Your task to perform on an android device: Open Google Maps and go to "Timeline" Image 0: 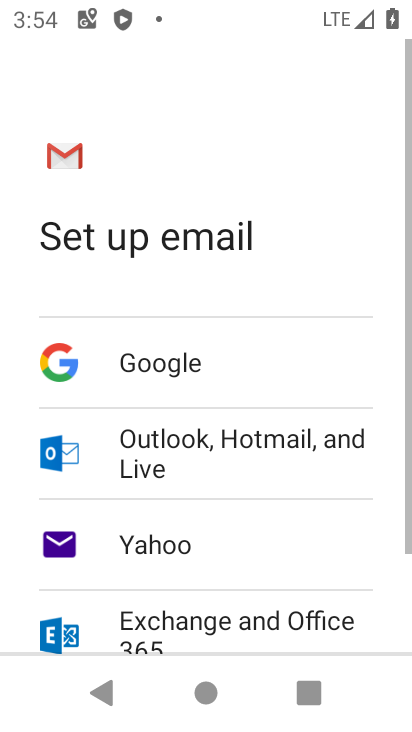
Step 0: press home button
Your task to perform on an android device: Open Google Maps and go to "Timeline" Image 1: 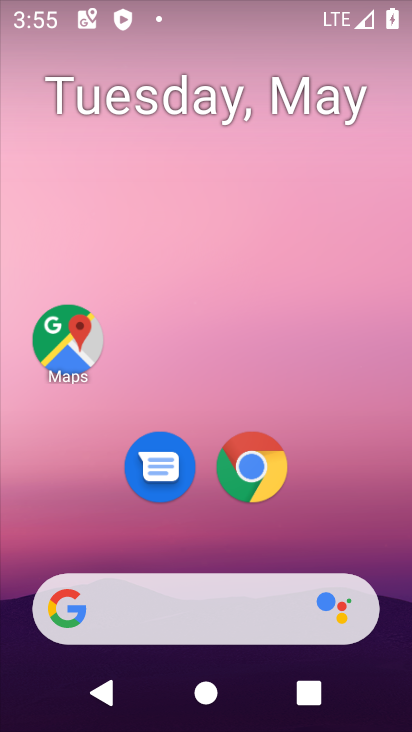
Step 1: click (64, 344)
Your task to perform on an android device: Open Google Maps and go to "Timeline" Image 2: 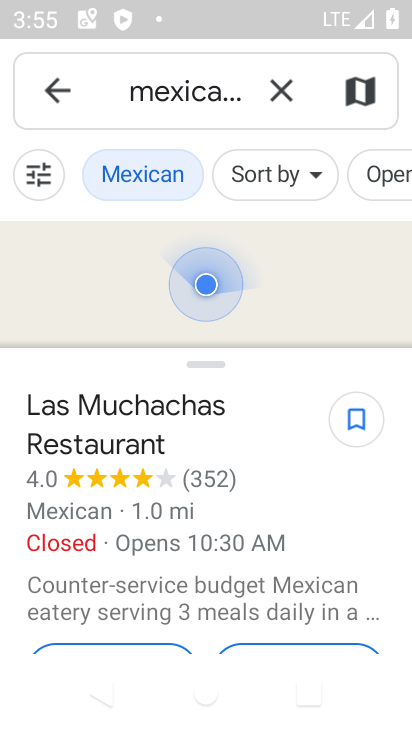
Step 2: click (292, 88)
Your task to perform on an android device: Open Google Maps and go to "Timeline" Image 3: 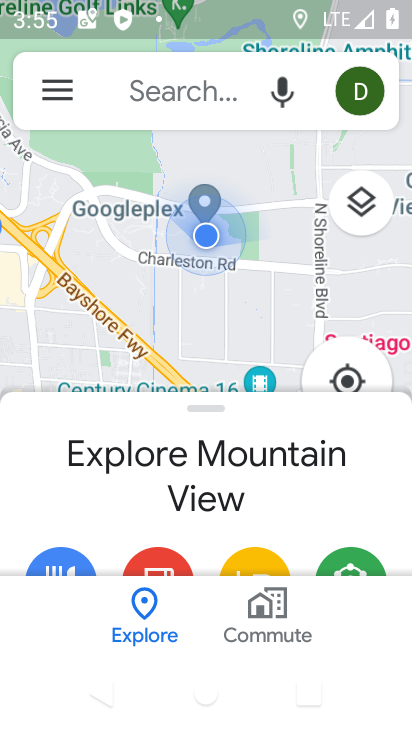
Step 3: click (63, 92)
Your task to perform on an android device: Open Google Maps and go to "Timeline" Image 4: 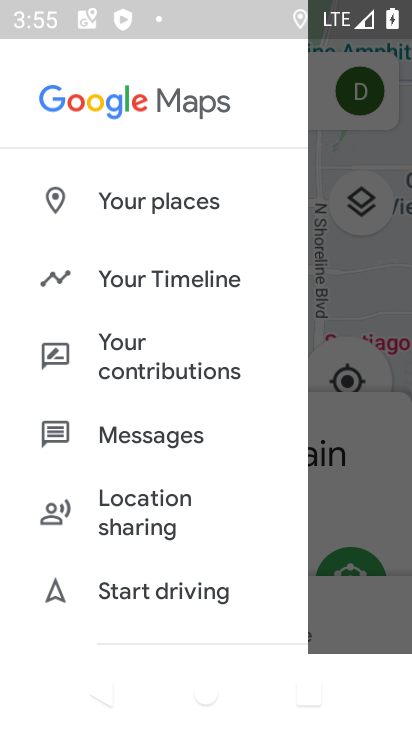
Step 4: click (178, 277)
Your task to perform on an android device: Open Google Maps and go to "Timeline" Image 5: 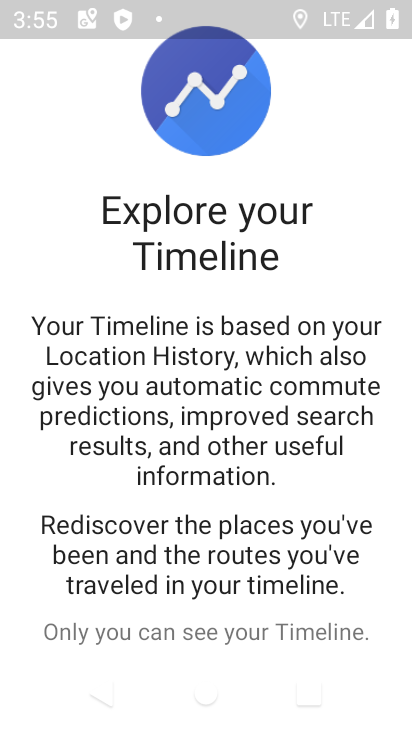
Step 5: drag from (346, 559) to (332, 263)
Your task to perform on an android device: Open Google Maps and go to "Timeline" Image 6: 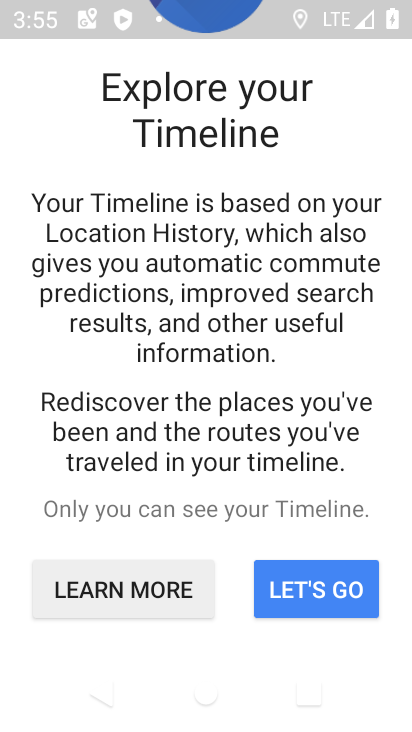
Step 6: click (317, 589)
Your task to perform on an android device: Open Google Maps and go to "Timeline" Image 7: 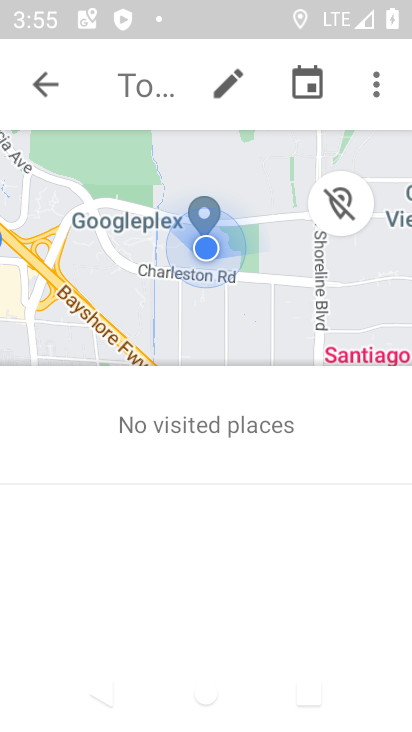
Step 7: task complete